Your task to perform on an android device: Open CNN.com Image 0: 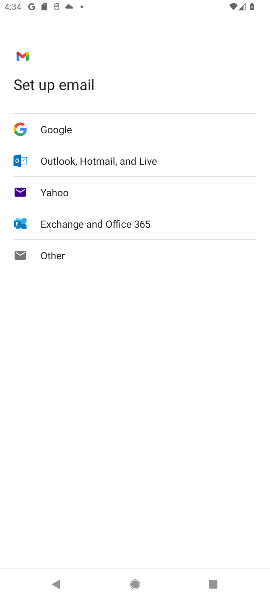
Step 0: press back button
Your task to perform on an android device: Open CNN.com Image 1: 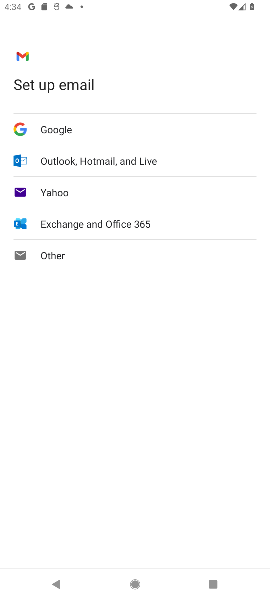
Step 1: press back button
Your task to perform on an android device: Open CNN.com Image 2: 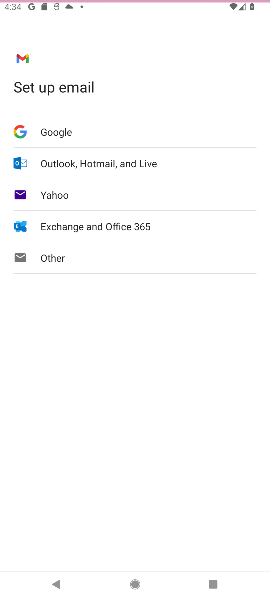
Step 2: press back button
Your task to perform on an android device: Open CNN.com Image 3: 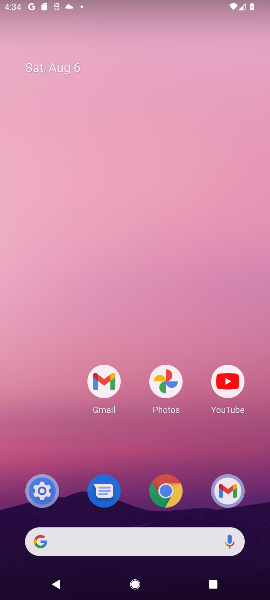
Step 3: press back button
Your task to perform on an android device: Open CNN.com Image 4: 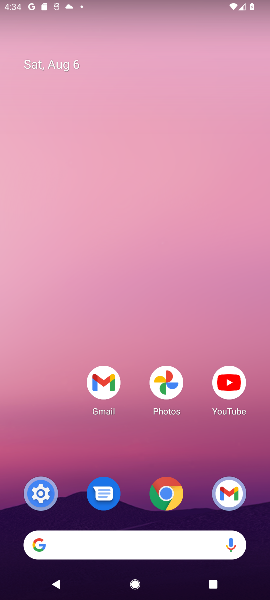
Step 4: drag from (202, 458) to (156, 260)
Your task to perform on an android device: Open CNN.com Image 5: 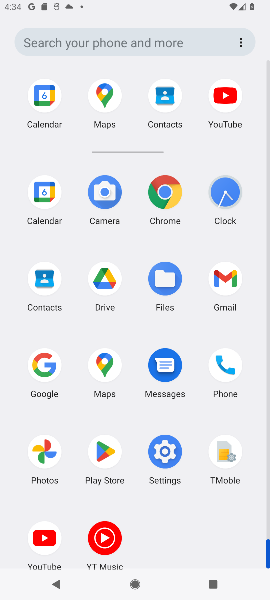
Step 5: click (163, 191)
Your task to perform on an android device: Open CNN.com Image 6: 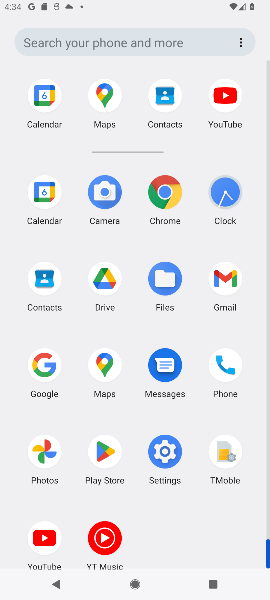
Step 6: click (163, 191)
Your task to perform on an android device: Open CNN.com Image 7: 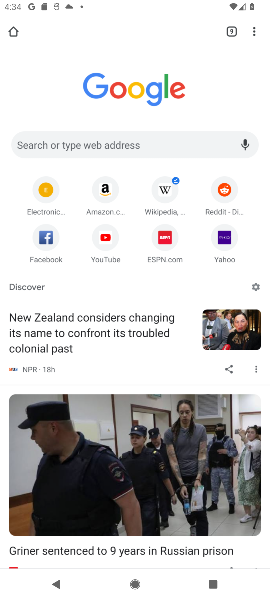
Step 7: click (163, 191)
Your task to perform on an android device: Open CNN.com Image 8: 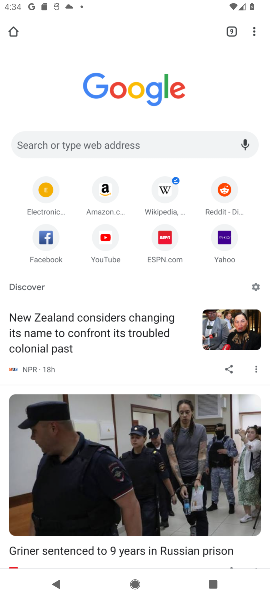
Step 8: click (163, 191)
Your task to perform on an android device: Open CNN.com Image 9: 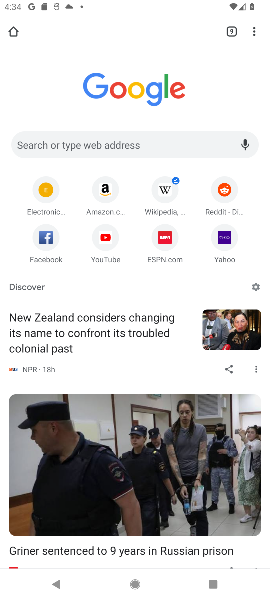
Step 9: click (41, 143)
Your task to perform on an android device: Open CNN.com Image 10: 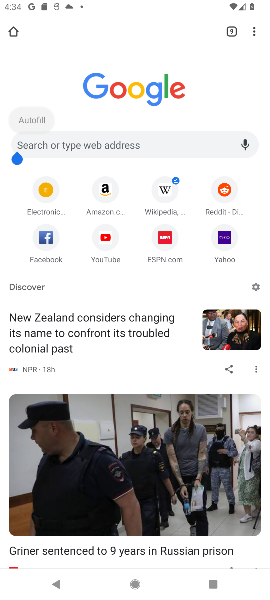
Step 10: click (41, 143)
Your task to perform on an android device: Open CNN.com Image 11: 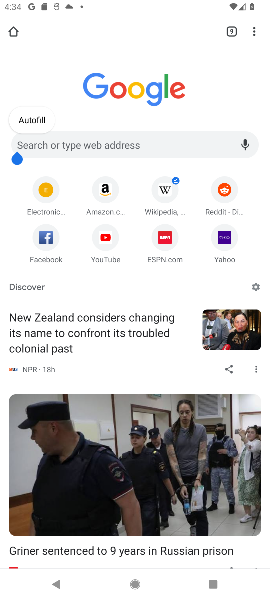
Step 11: click (41, 143)
Your task to perform on an android device: Open CNN.com Image 12: 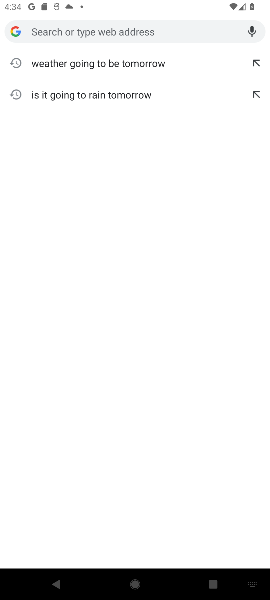
Step 12: click (41, 143)
Your task to perform on an android device: Open CNN.com Image 13: 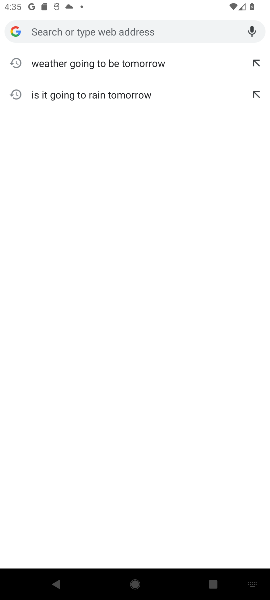
Step 13: type "CNN.com"
Your task to perform on an android device: Open CNN.com Image 14: 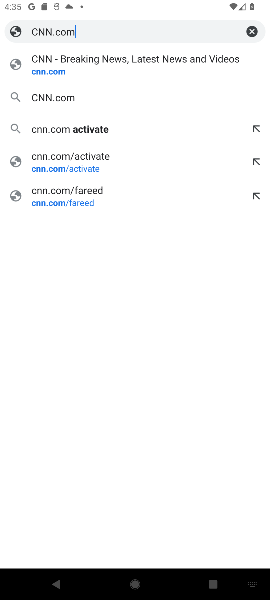
Step 14: click (80, 50)
Your task to perform on an android device: Open CNN.com Image 15: 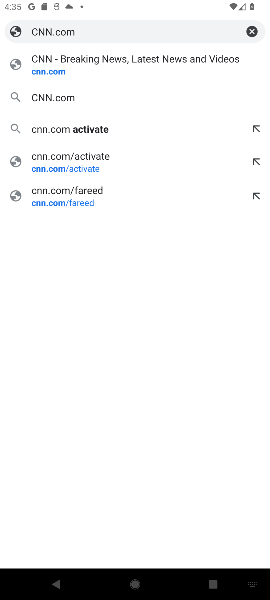
Step 15: click (81, 55)
Your task to perform on an android device: Open CNN.com Image 16: 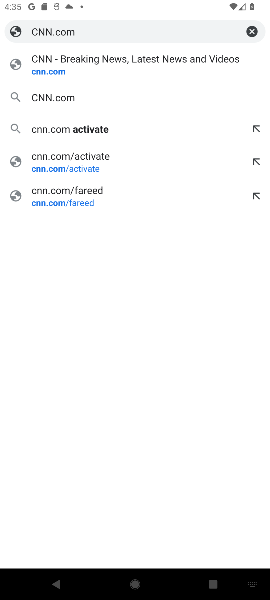
Step 16: click (78, 57)
Your task to perform on an android device: Open CNN.com Image 17: 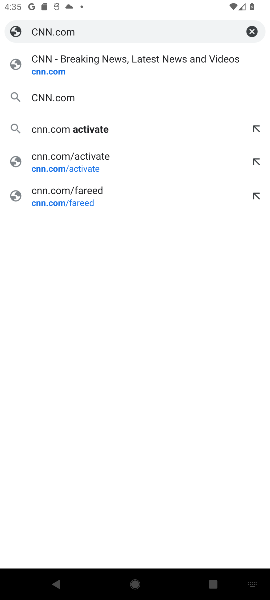
Step 17: click (85, 63)
Your task to perform on an android device: Open CNN.com Image 18: 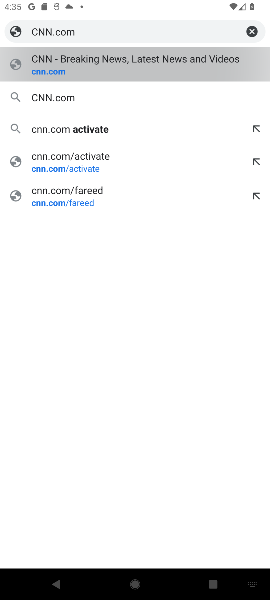
Step 18: click (86, 62)
Your task to perform on an android device: Open CNN.com Image 19: 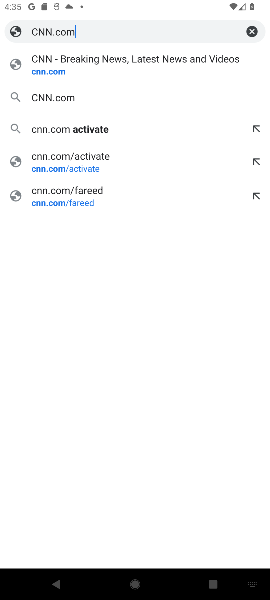
Step 19: click (88, 60)
Your task to perform on an android device: Open CNN.com Image 20: 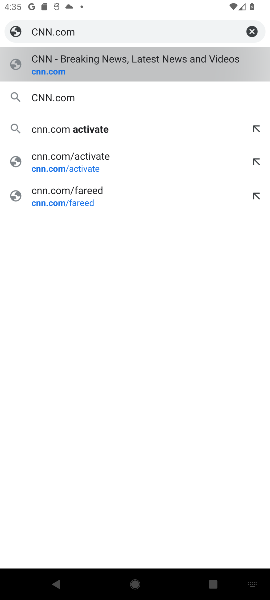
Step 20: click (55, 75)
Your task to perform on an android device: Open CNN.com Image 21: 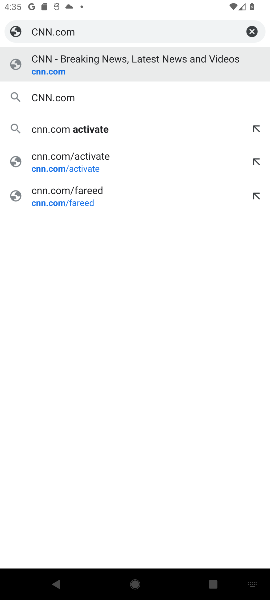
Step 21: click (55, 75)
Your task to perform on an android device: Open CNN.com Image 22: 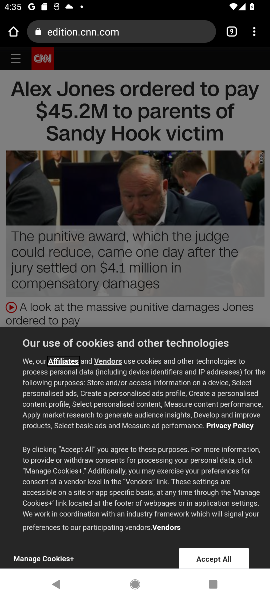
Step 22: task complete